Your task to perform on an android device: snooze an email in the gmail app Image 0: 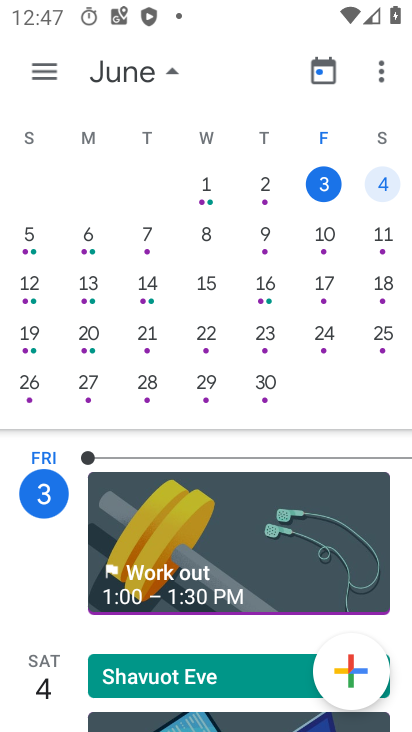
Step 0: press home button
Your task to perform on an android device: snooze an email in the gmail app Image 1: 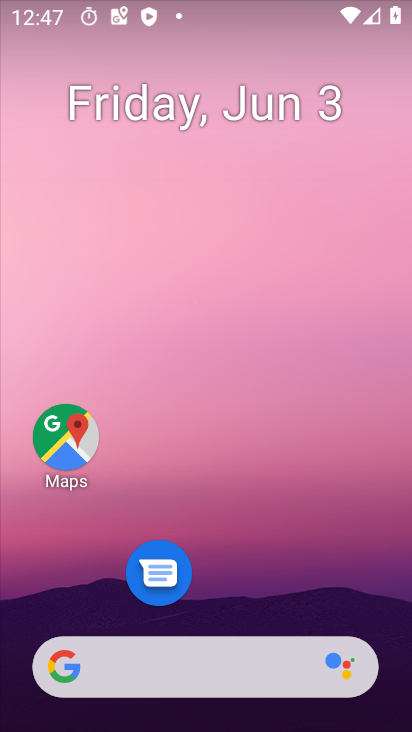
Step 1: drag from (272, 623) to (89, 23)
Your task to perform on an android device: snooze an email in the gmail app Image 2: 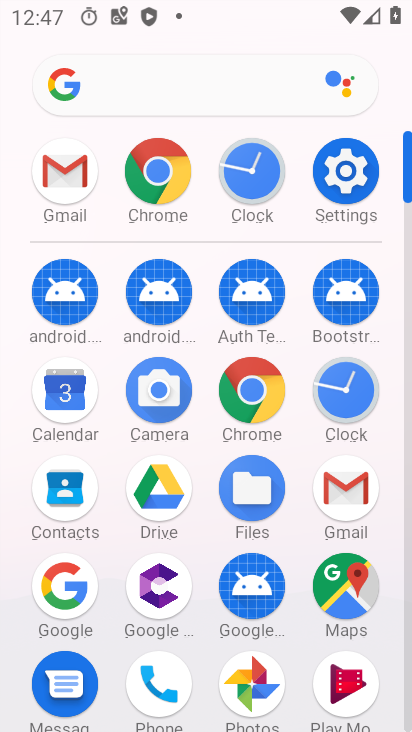
Step 2: click (38, 185)
Your task to perform on an android device: snooze an email in the gmail app Image 3: 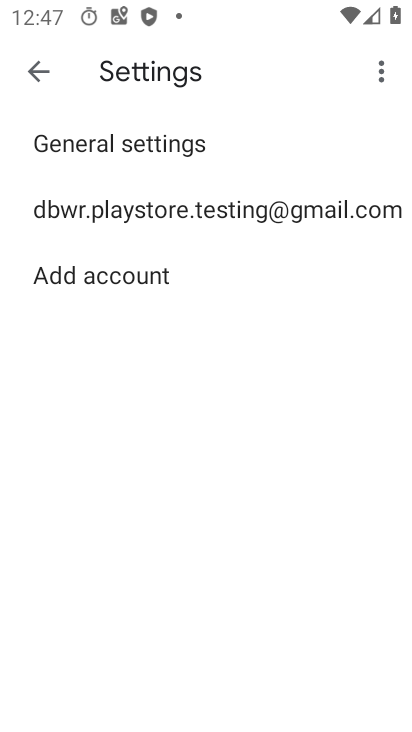
Step 3: press back button
Your task to perform on an android device: snooze an email in the gmail app Image 4: 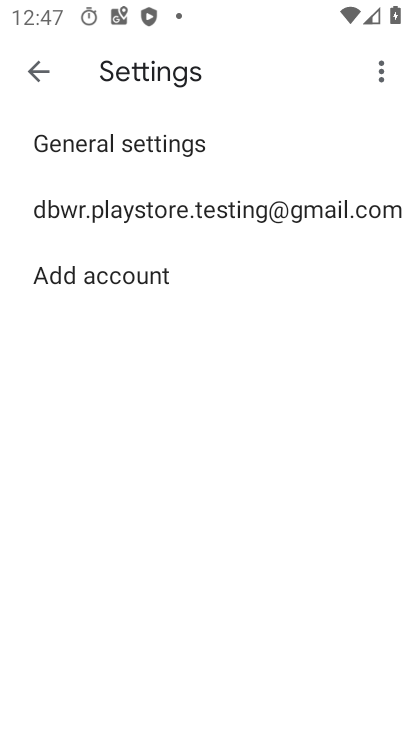
Step 4: press back button
Your task to perform on an android device: snooze an email in the gmail app Image 5: 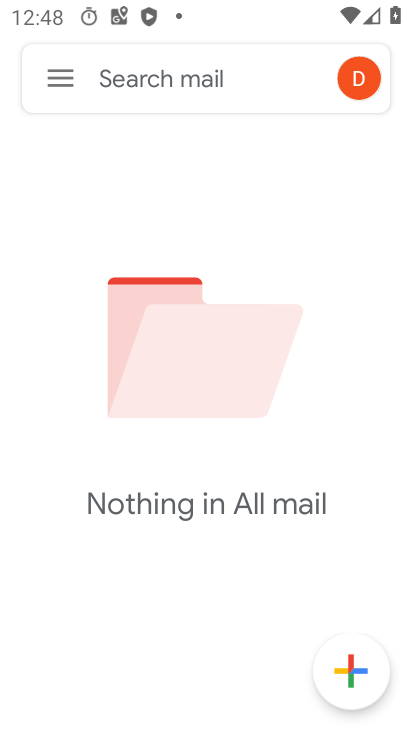
Step 5: click (71, 64)
Your task to perform on an android device: snooze an email in the gmail app Image 6: 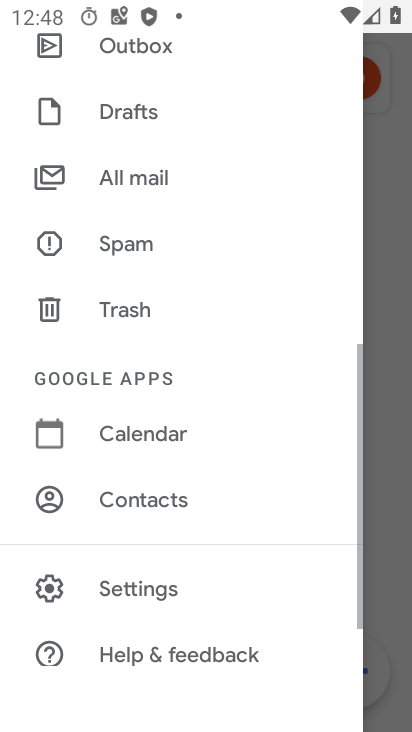
Step 6: task complete